Your task to perform on an android device: Go to Amazon Image 0: 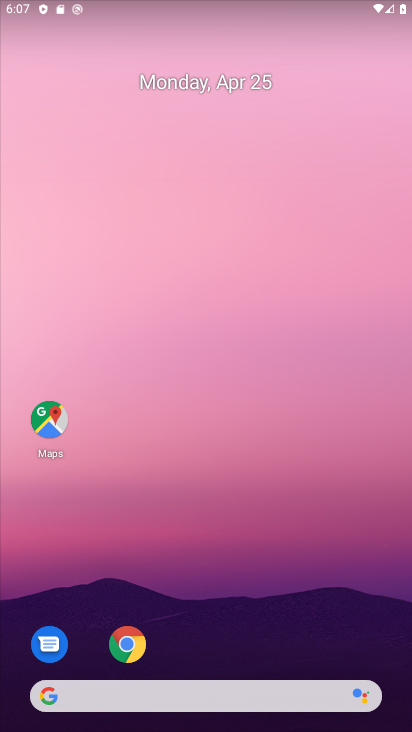
Step 0: click (126, 640)
Your task to perform on an android device: Go to Amazon Image 1: 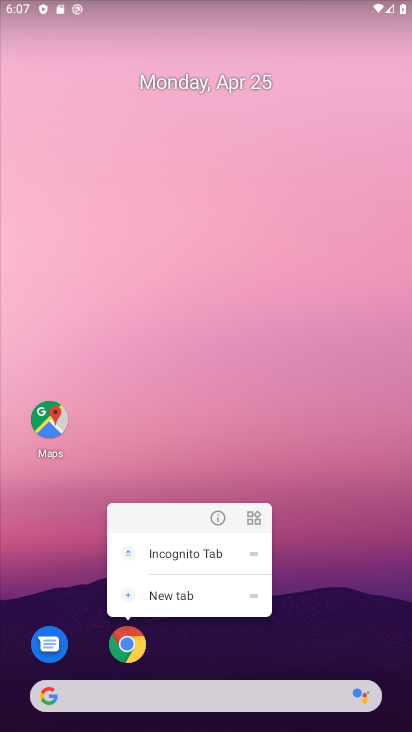
Step 1: click (130, 643)
Your task to perform on an android device: Go to Amazon Image 2: 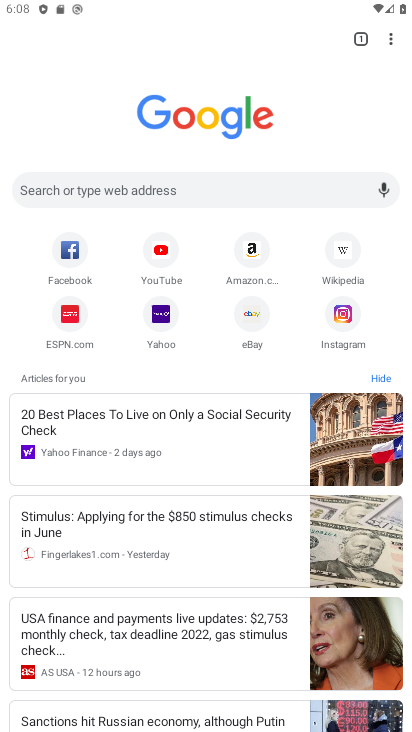
Step 2: click (251, 254)
Your task to perform on an android device: Go to Amazon Image 3: 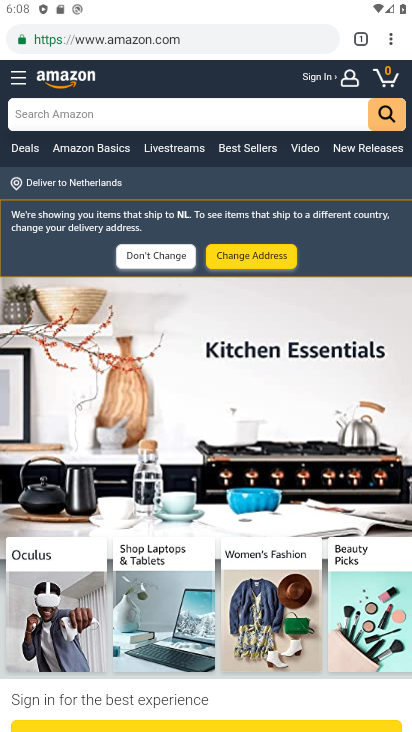
Step 3: task complete